Your task to perform on an android device: delete a single message in the gmail app Image 0: 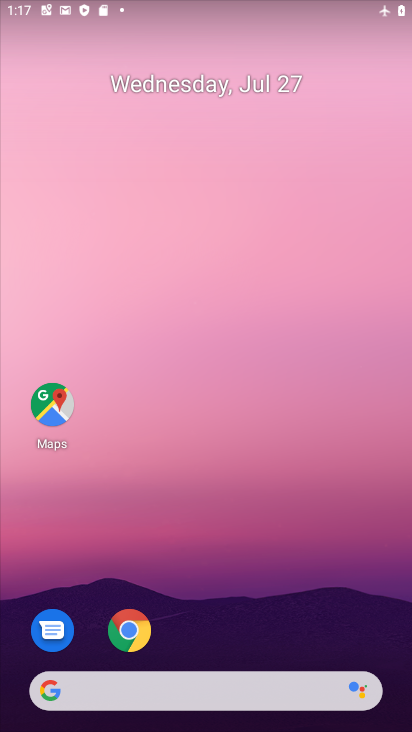
Step 0: drag from (397, 708) to (325, 79)
Your task to perform on an android device: delete a single message in the gmail app Image 1: 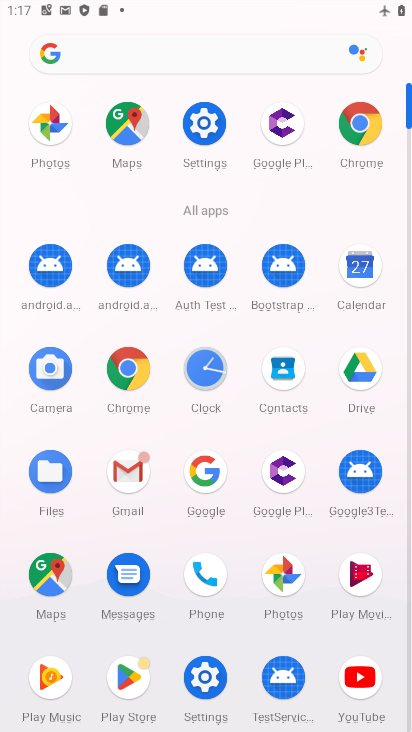
Step 1: click (128, 474)
Your task to perform on an android device: delete a single message in the gmail app Image 2: 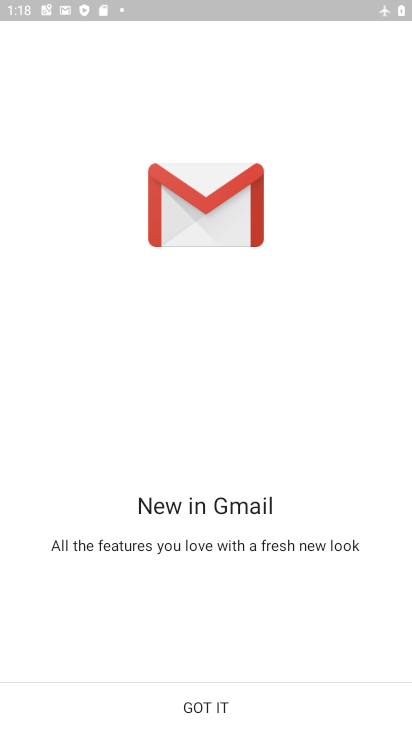
Step 2: click (208, 708)
Your task to perform on an android device: delete a single message in the gmail app Image 3: 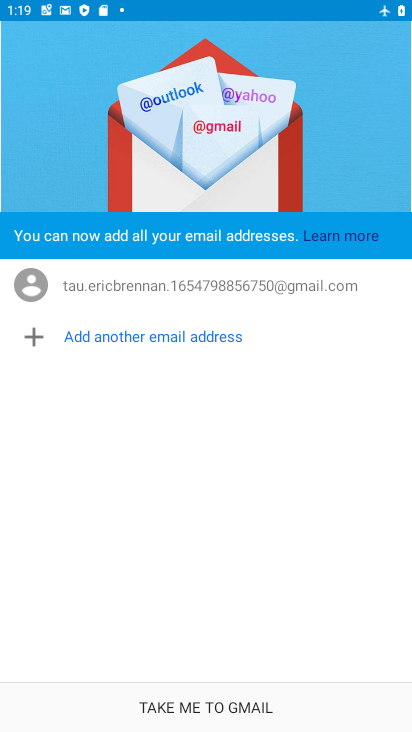
Step 3: click (146, 711)
Your task to perform on an android device: delete a single message in the gmail app Image 4: 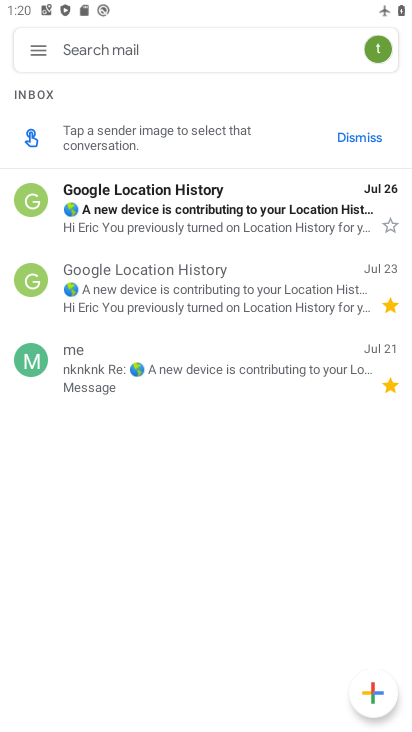
Step 4: click (288, 219)
Your task to perform on an android device: delete a single message in the gmail app Image 5: 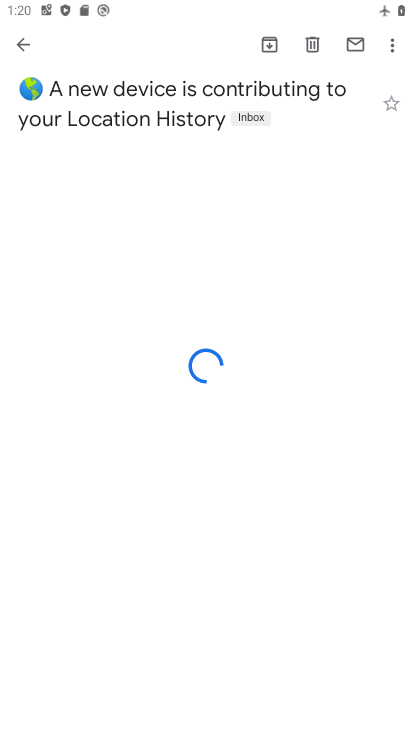
Step 5: click (309, 39)
Your task to perform on an android device: delete a single message in the gmail app Image 6: 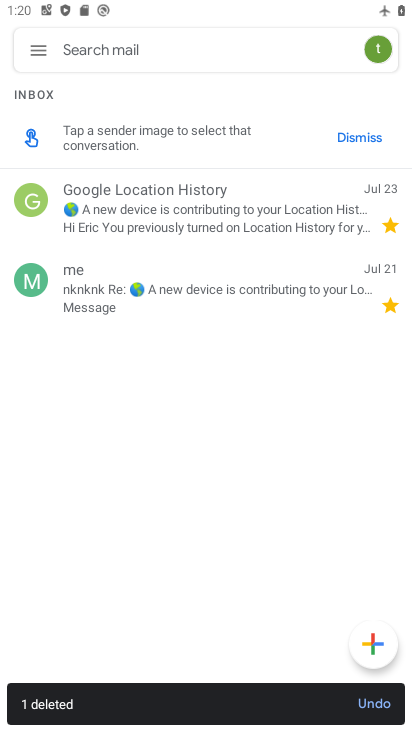
Step 6: task complete